Your task to perform on an android device: turn off picture-in-picture Image 0: 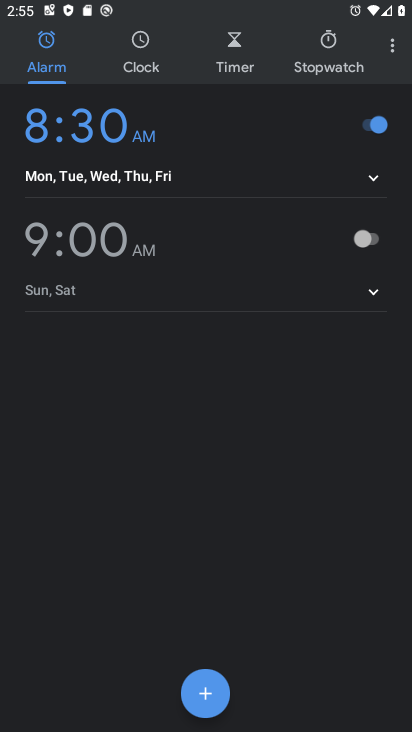
Step 0: press home button
Your task to perform on an android device: turn off picture-in-picture Image 1: 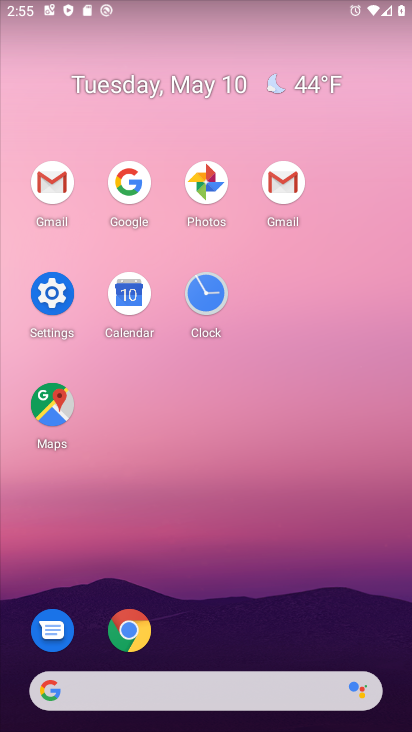
Step 1: click (119, 629)
Your task to perform on an android device: turn off picture-in-picture Image 2: 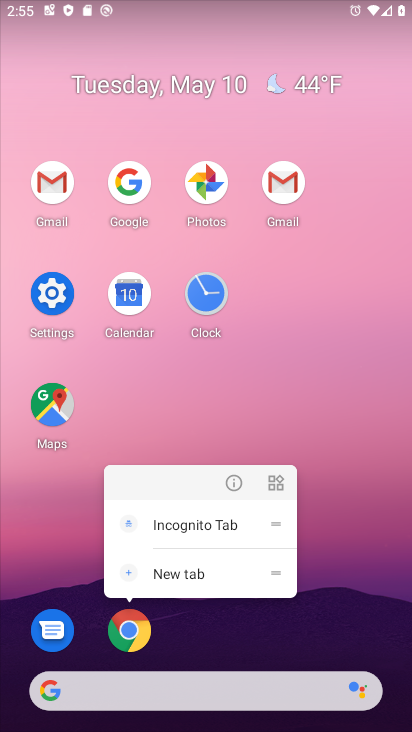
Step 2: click (227, 483)
Your task to perform on an android device: turn off picture-in-picture Image 3: 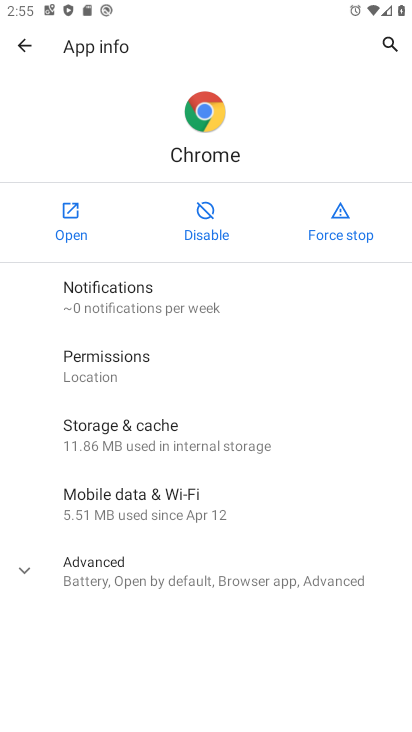
Step 3: click (202, 587)
Your task to perform on an android device: turn off picture-in-picture Image 4: 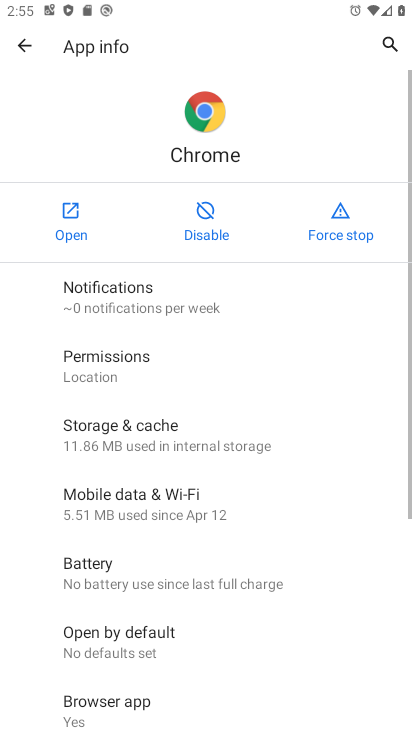
Step 4: drag from (202, 587) to (223, 245)
Your task to perform on an android device: turn off picture-in-picture Image 5: 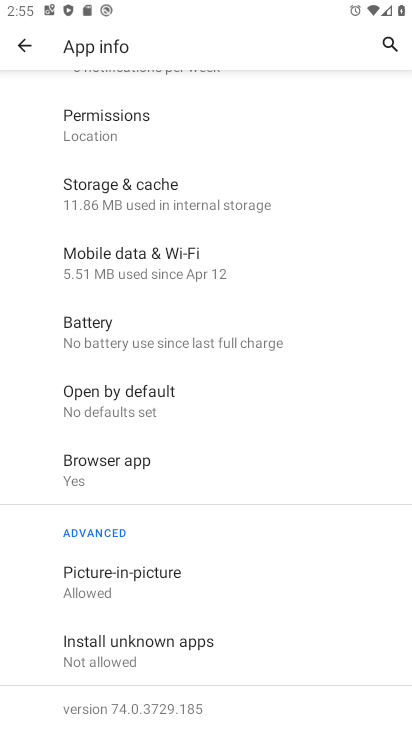
Step 5: click (208, 584)
Your task to perform on an android device: turn off picture-in-picture Image 6: 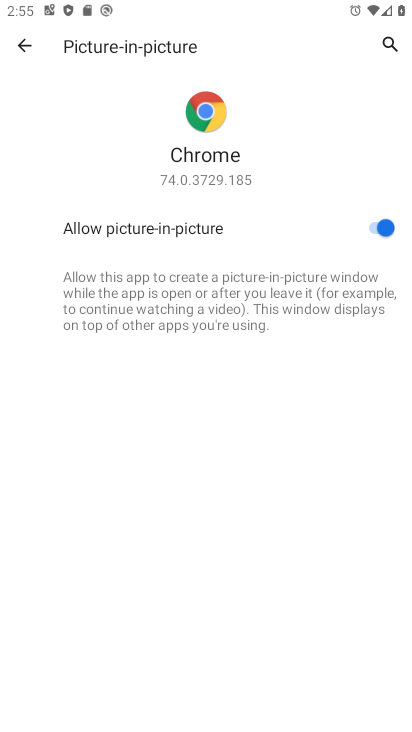
Step 6: click (381, 226)
Your task to perform on an android device: turn off picture-in-picture Image 7: 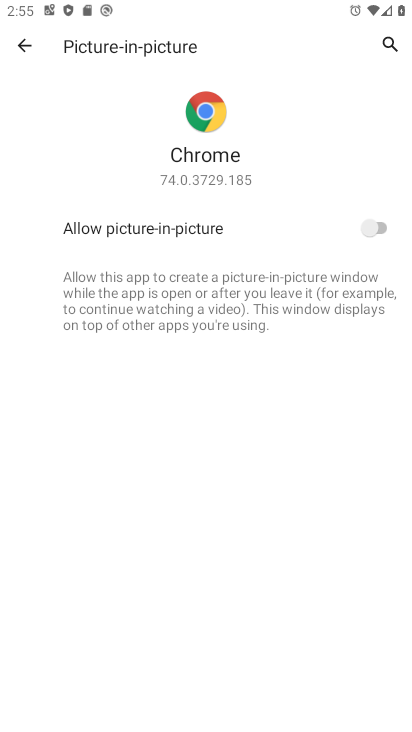
Step 7: task complete